Your task to perform on an android device: turn on the 12-hour format for clock Image 0: 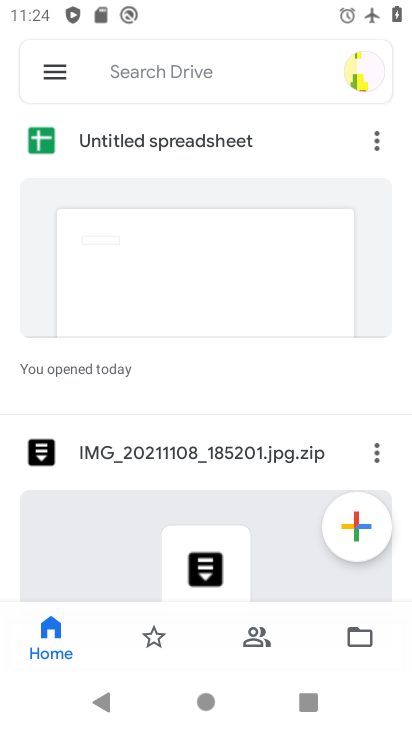
Step 0: press home button
Your task to perform on an android device: turn on the 12-hour format for clock Image 1: 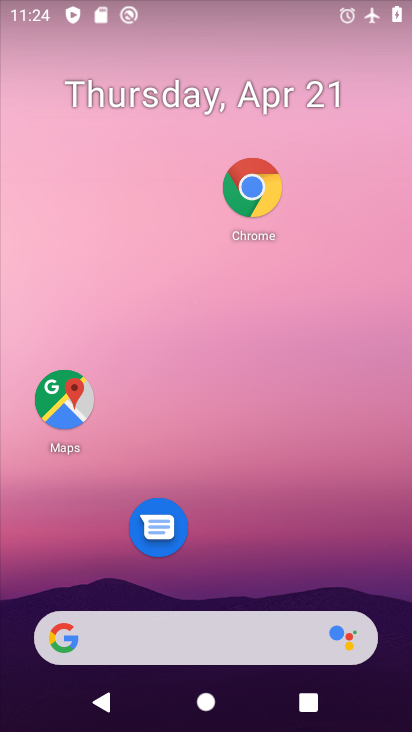
Step 1: drag from (283, 529) to (285, 230)
Your task to perform on an android device: turn on the 12-hour format for clock Image 2: 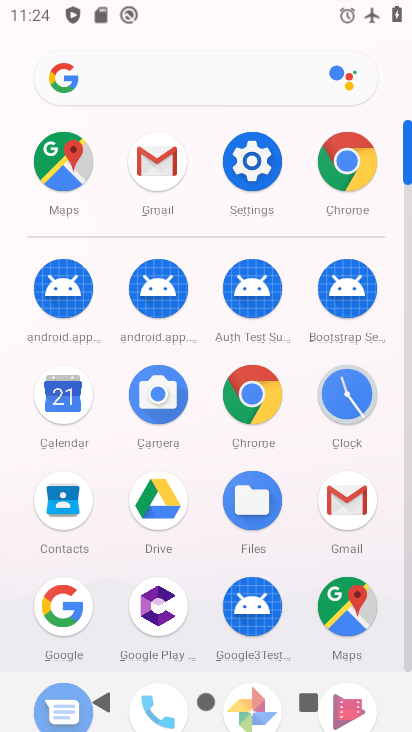
Step 2: click (368, 416)
Your task to perform on an android device: turn on the 12-hour format for clock Image 3: 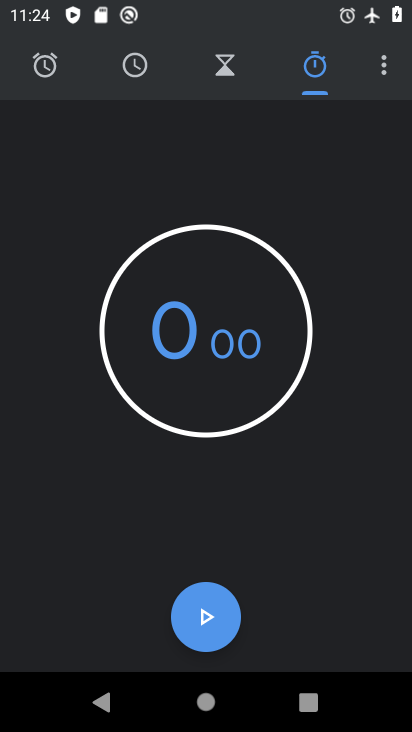
Step 3: click (387, 68)
Your task to perform on an android device: turn on the 12-hour format for clock Image 4: 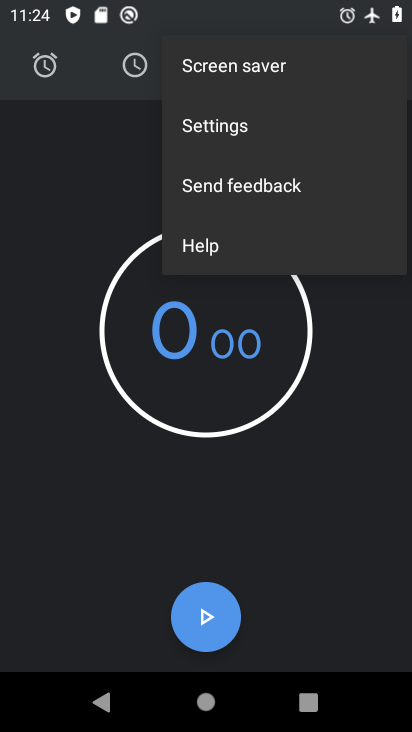
Step 4: click (247, 130)
Your task to perform on an android device: turn on the 12-hour format for clock Image 5: 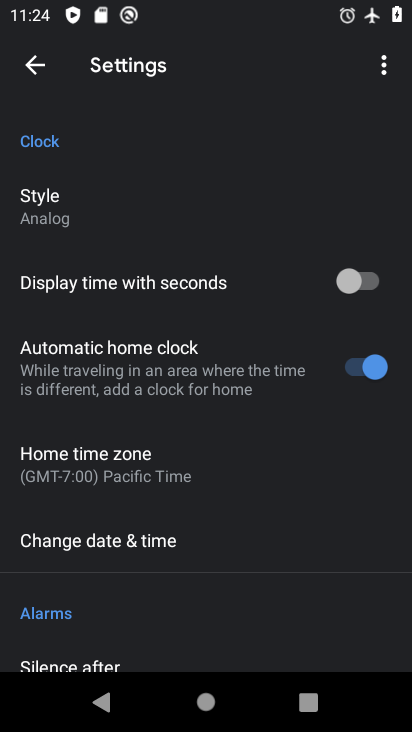
Step 5: click (218, 535)
Your task to perform on an android device: turn on the 12-hour format for clock Image 6: 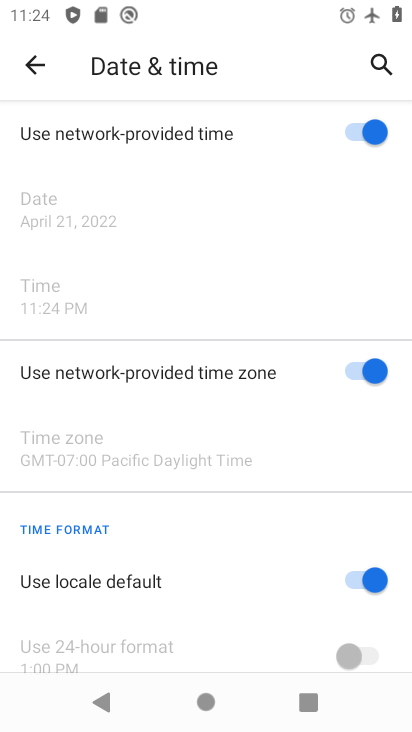
Step 6: task complete